Your task to perform on an android device: Open the web browser Image 0: 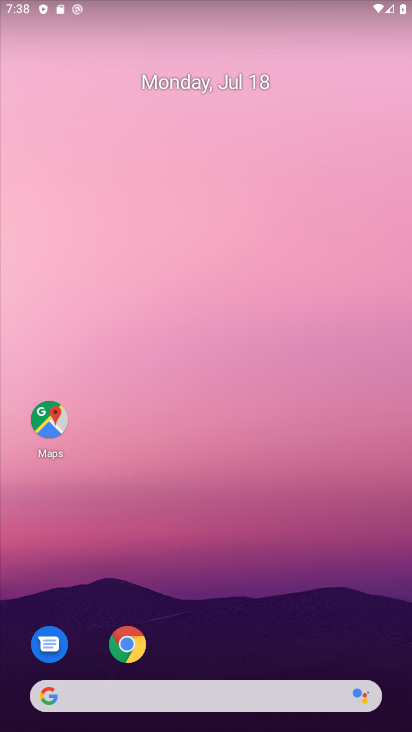
Step 0: click (118, 647)
Your task to perform on an android device: Open the web browser Image 1: 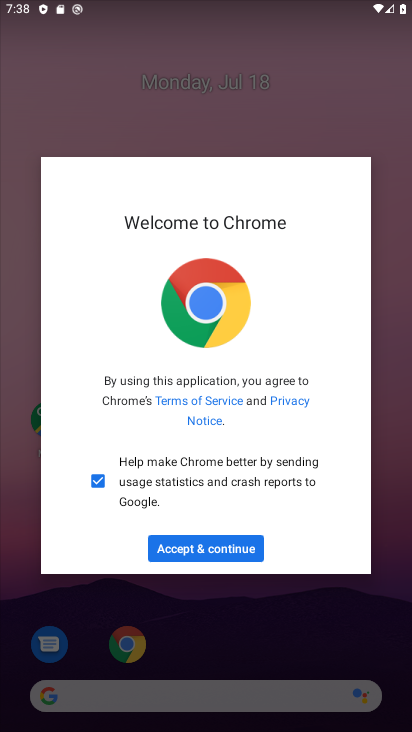
Step 1: click (216, 552)
Your task to perform on an android device: Open the web browser Image 2: 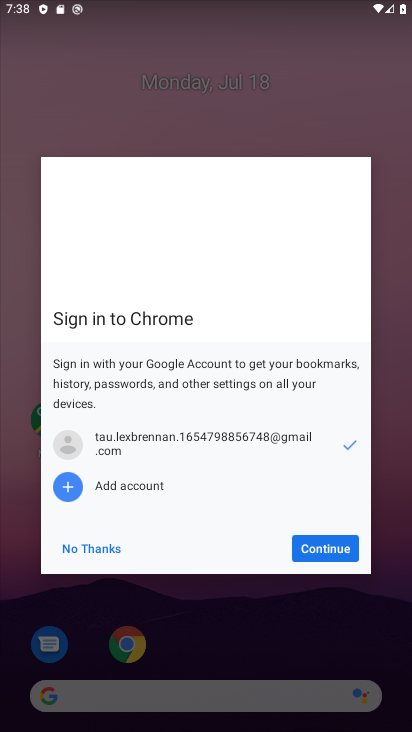
Step 2: click (321, 552)
Your task to perform on an android device: Open the web browser Image 3: 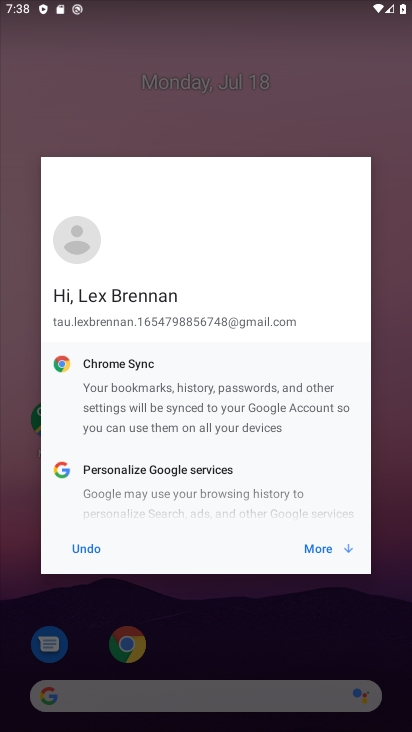
Step 3: click (322, 550)
Your task to perform on an android device: Open the web browser Image 4: 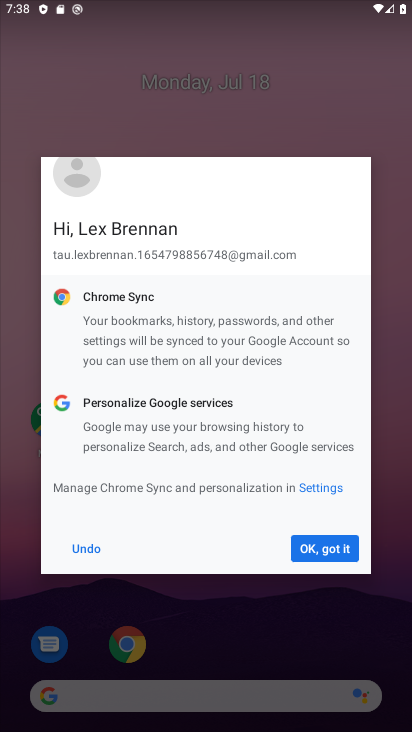
Step 4: click (322, 550)
Your task to perform on an android device: Open the web browser Image 5: 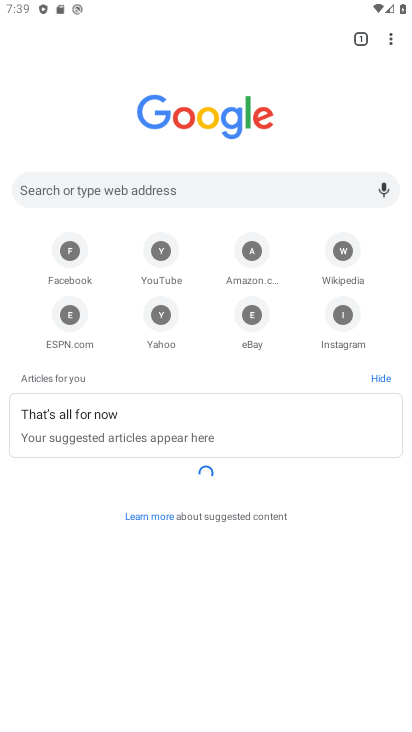
Step 5: task complete